Your task to perform on an android device: Go to sound settings Image 0: 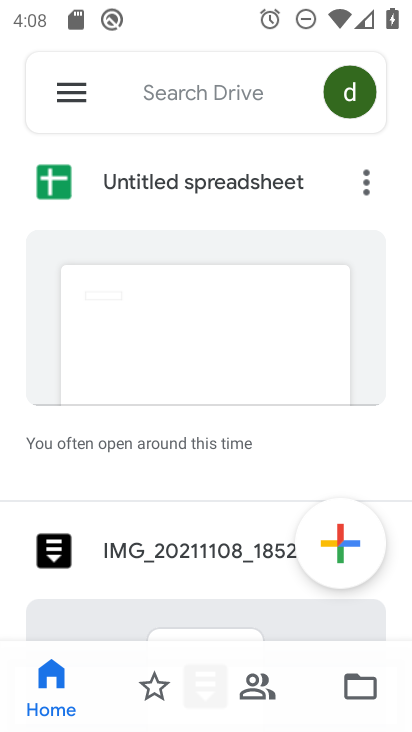
Step 0: press back button
Your task to perform on an android device: Go to sound settings Image 1: 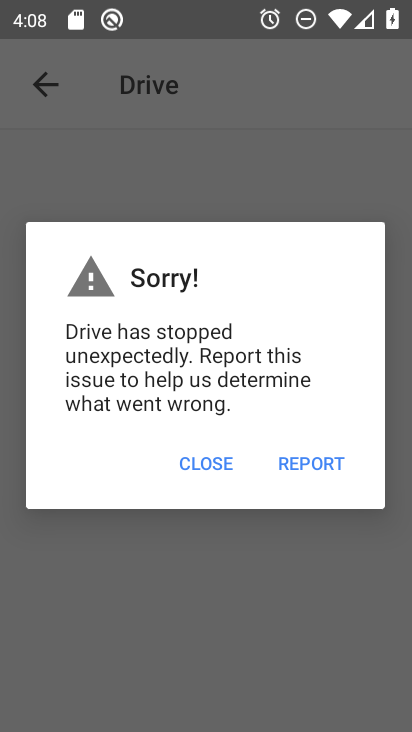
Step 1: press home button
Your task to perform on an android device: Go to sound settings Image 2: 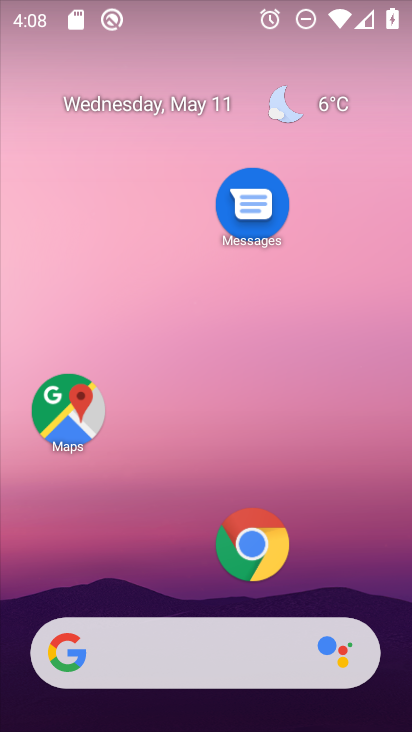
Step 2: drag from (123, 525) to (240, 20)
Your task to perform on an android device: Go to sound settings Image 3: 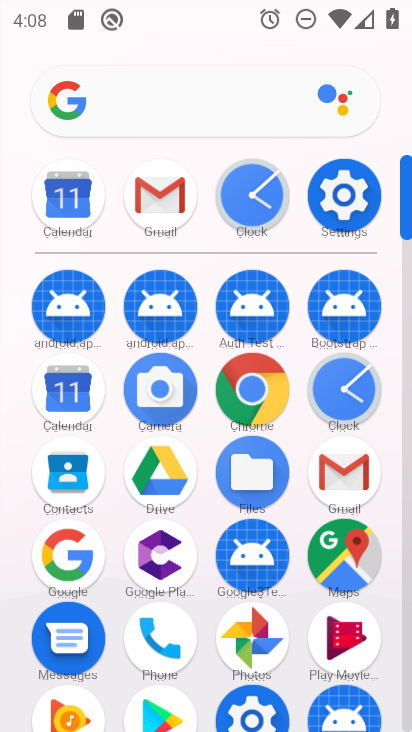
Step 3: click (352, 187)
Your task to perform on an android device: Go to sound settings Image 4: 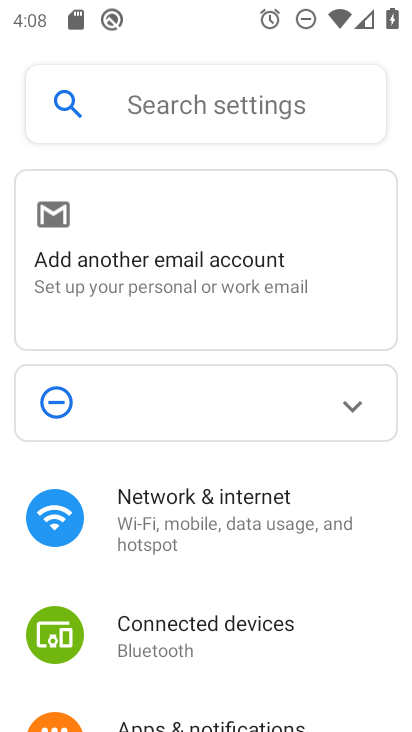
Step 4: drag from (166, 607) to (303, 46)
Your task to perform on an android device: Go to sound settings Image 5: 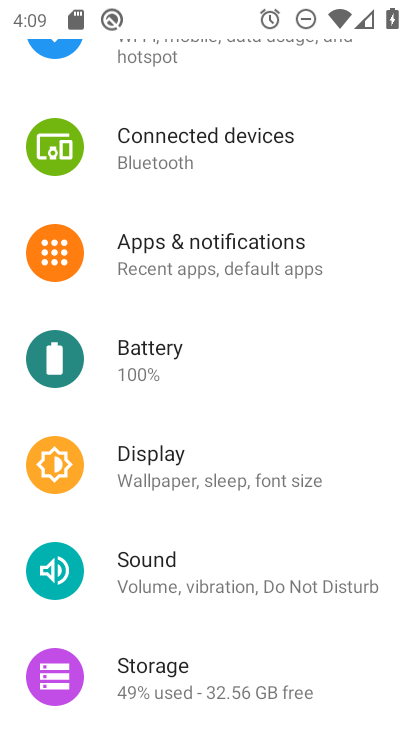
Step 5: click (142, 570)
Your task to perform on an android device: Go to sound settings Image 6: 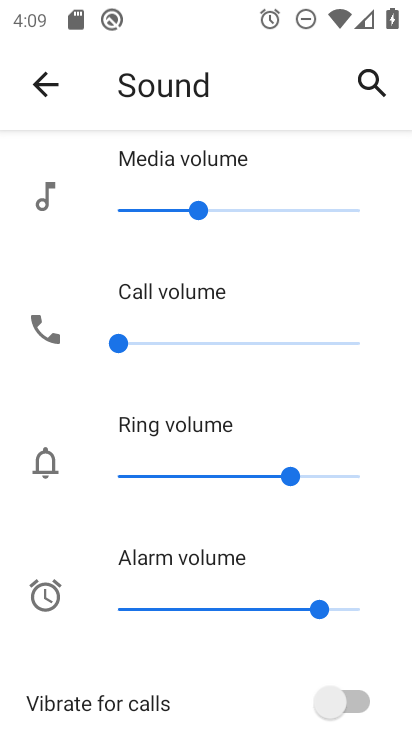
Step 6: task complete